Your task to perform on an android device: When is my next appointment? Image 0: 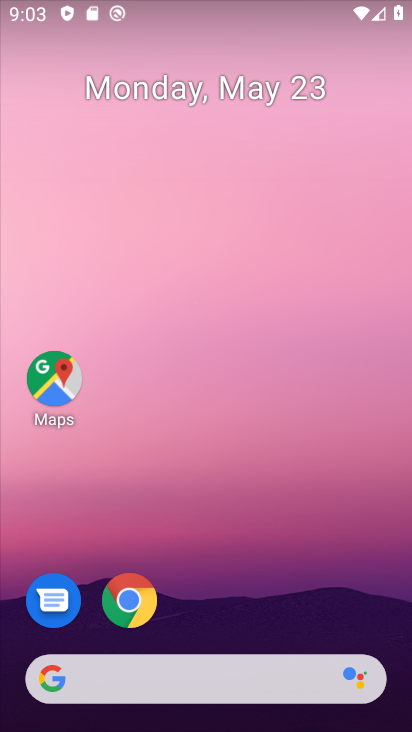
Step 0: drag from (257, 677) to (264, 67)
Your task to perform on an android device: When is my next appointment? Image 1: 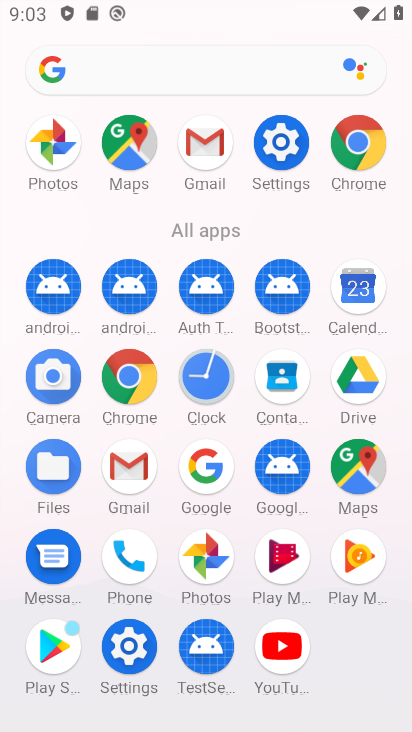
Step 1: click (361, 306)
Your task to perform on an android device: When is my next appointment? Image 2: 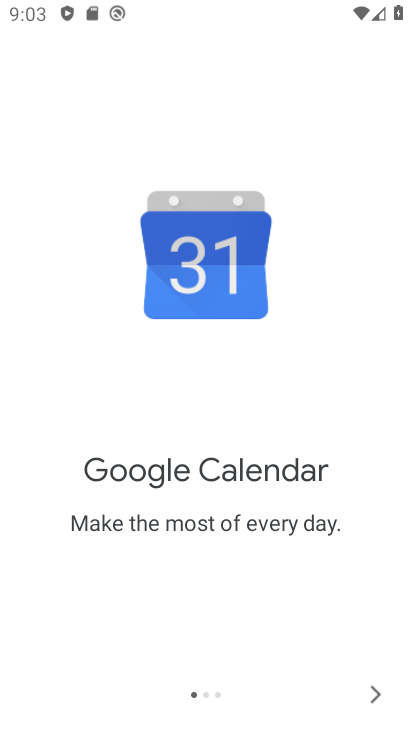
Step 2: click (380, 693)
Your task to perform on an android device: When is my next appointment? Image 3: 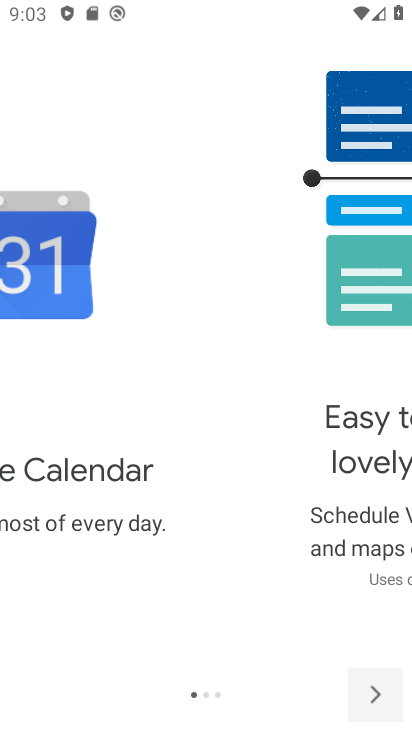
Step 3: click (380, 693)
Your task to perform on an android device: When is my next appointment? Image 4: 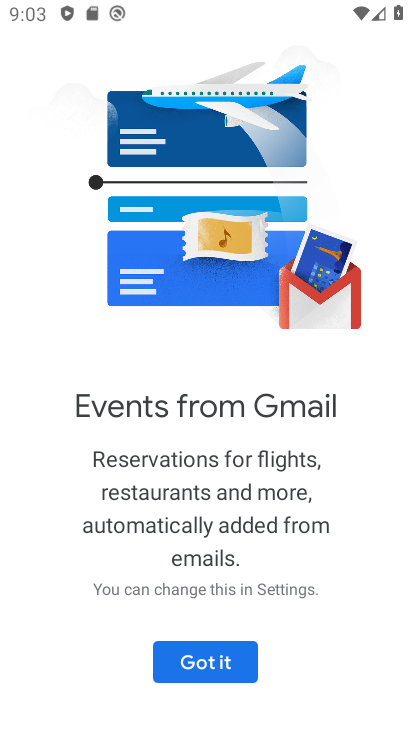
Step 4: click (211, 656)
Your task to perform on an android device: When is my next appointment? Image 5: 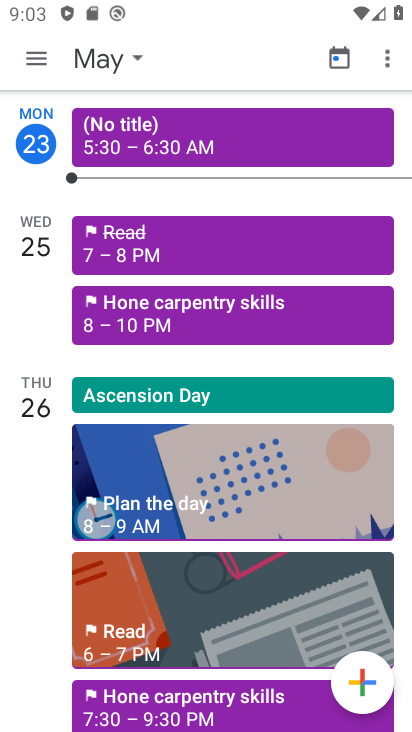
Step 5: click (132, 64)
Your task to perform on an android device: When is my next appointment? Image 6: 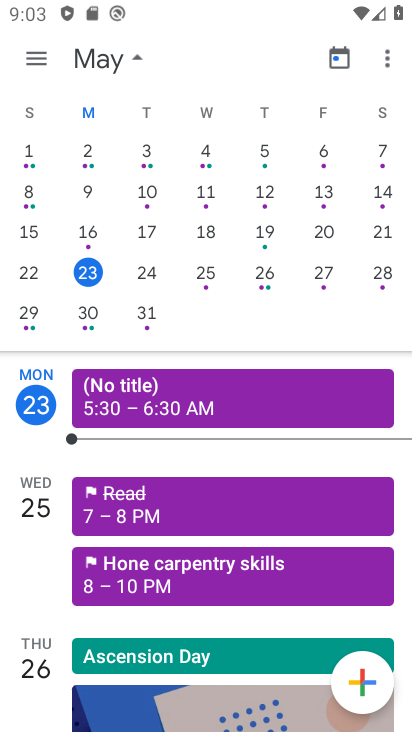
Step 6: click (133, 270)
Your task to perform on an android device: When is my next appointment? Image 7: 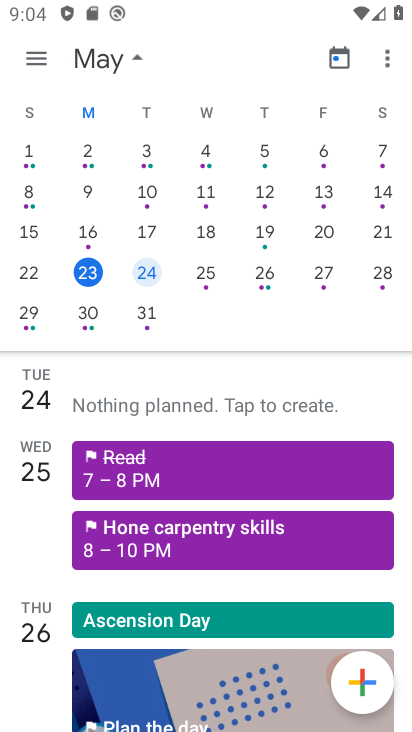
Step 7: task complete